Your task to perform on an android device: Go to calendar. Show me events next week Image 0: 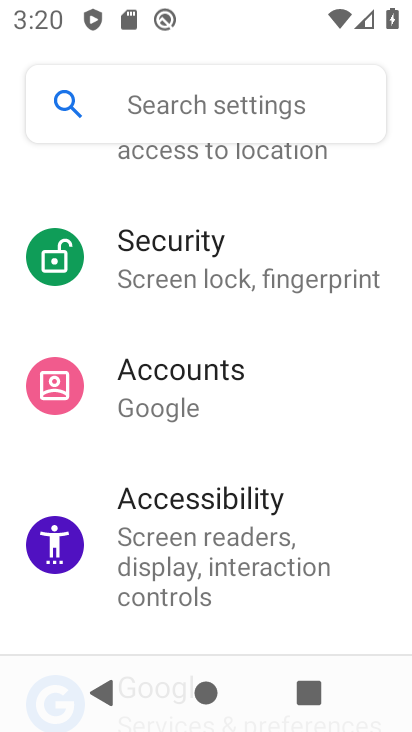
Step 0: press home button
Your task to perform on an android device: Go to calendar. Show me events next week Image 1: 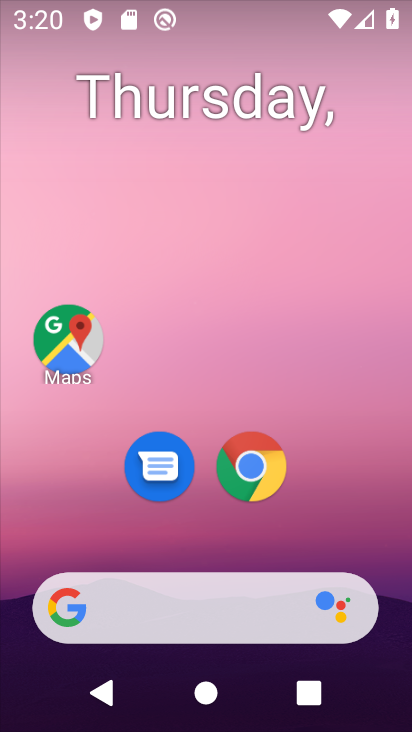
Step 1: drag from (283, 581) to (304, 0)
Your task to perform on an android device: Go to calendar. Show me events next week Image 2: 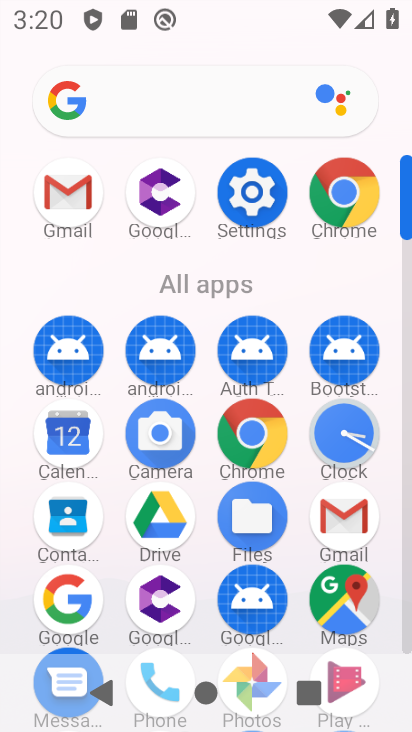
Step 2: click (61, 443)
Your task to perform on an android device: Go to calendar. Show me events next week Image 3: 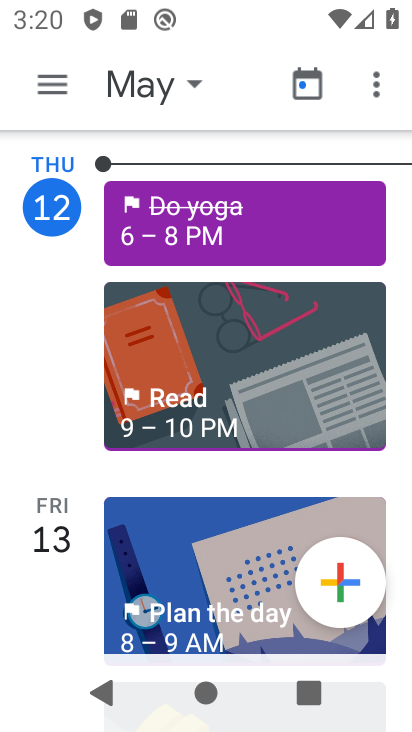
Step 3: click (195, 87)
Your task to perform on an android device: Go to calendar. Show me events next week Image 4: 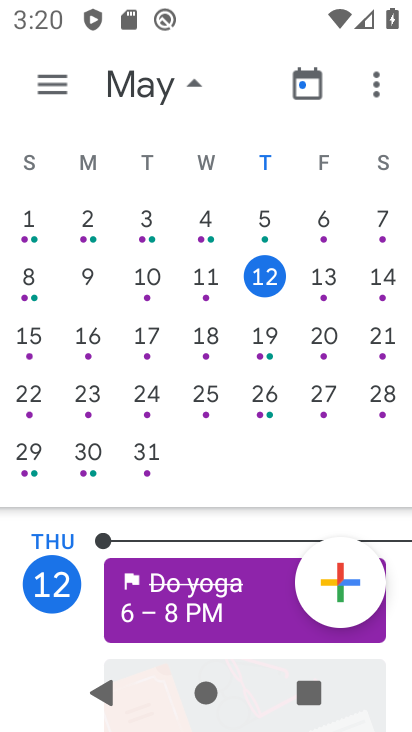
Step 4: drag from (387, 356) to (16, 394)
Your task to perform on an android device: Go to calendar. Show me events next week Image 5: 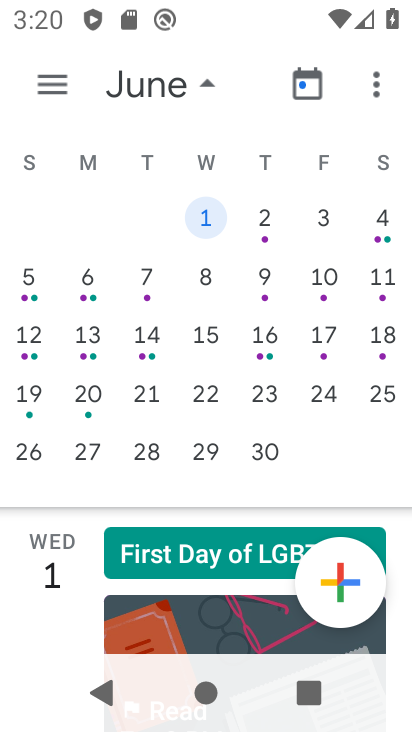
Step 5: drag from (34, 322) to (373, 348)
Your task to perform on an android device: Go to calendar. Show me events next week Image 6: 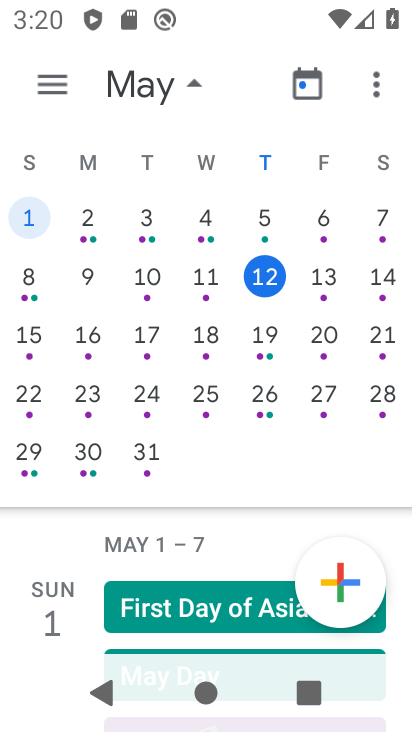
Step 6: click (268, 331)
Your task to perform on an android device: Go to calendar. Show me events next week Image 7: 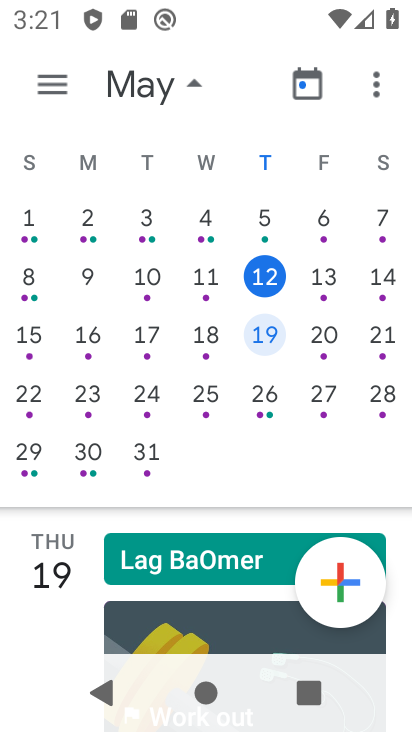
Step 7: click (64, 71)
Your task to perform on an android device: Go to calendar. Show me events next week Image 8: 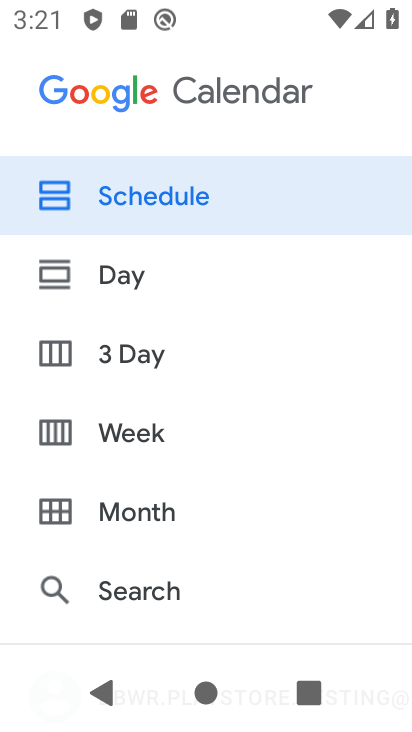
Step 8: click (160, 430)
Your task to perform on an android device: Go to calendar. Show me events next week Image 9: 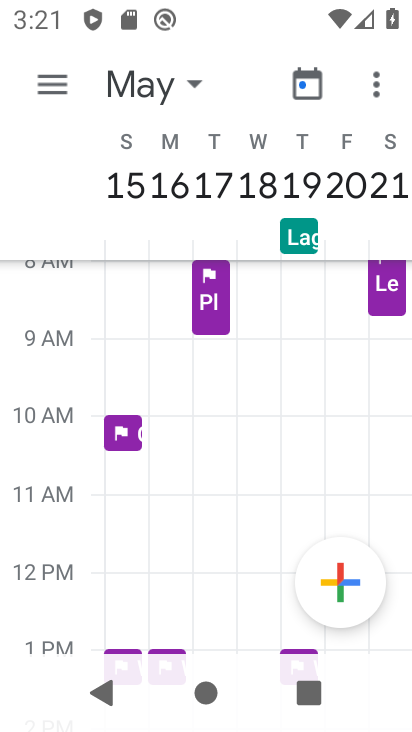
Step 9: task complete